Your task to perform on an android device: change keyboard looks Image 0: 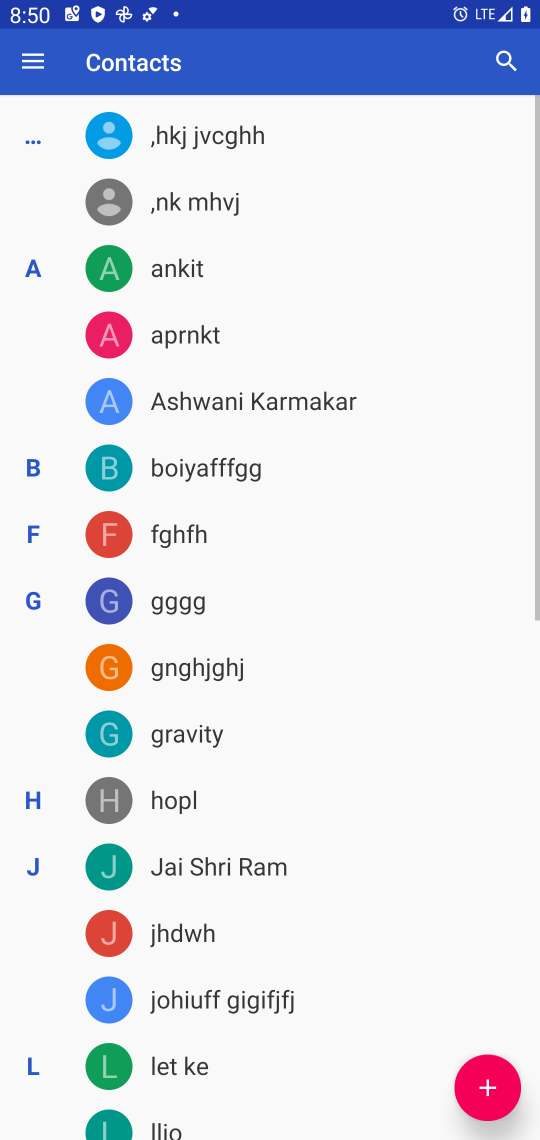
Step 0: press home button
Your task to perform on an android device: change keyboard looks Image 1: 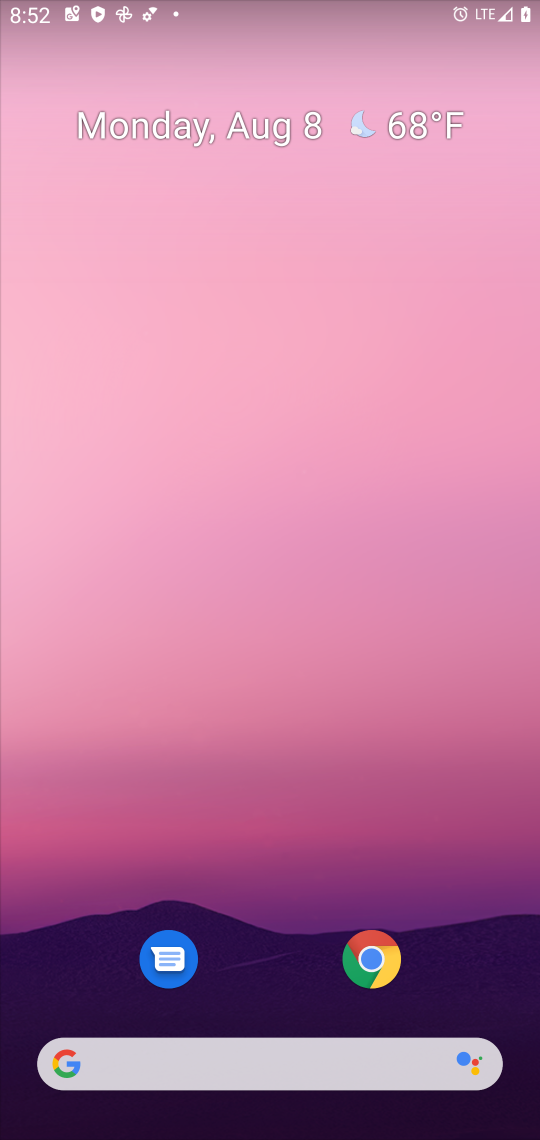
Step 1: drag from (446, 1014) to (253, 8)
Your task to perform on an android device: change keyboard looks Image 2: 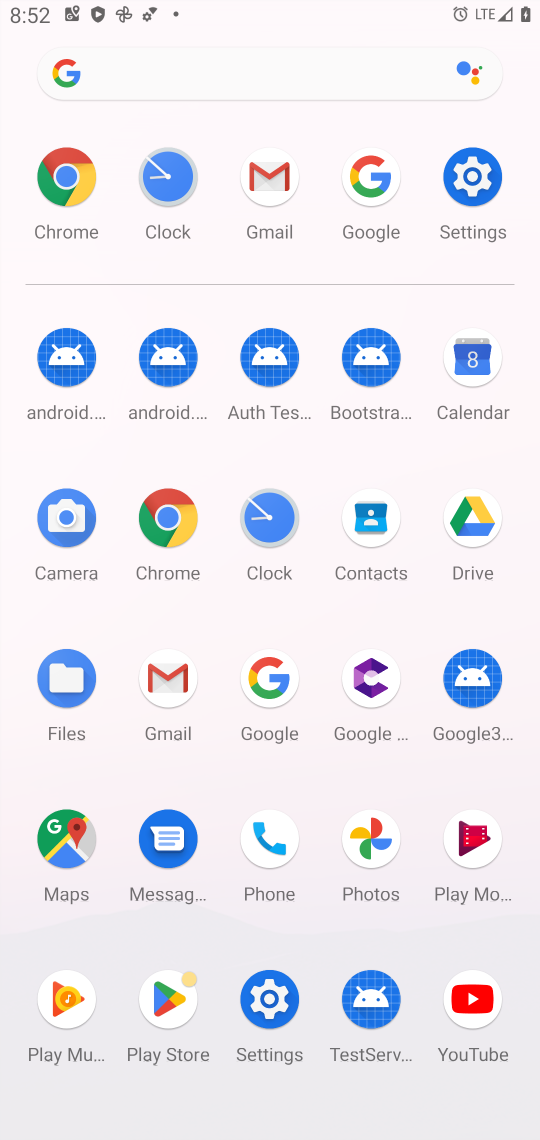
Step 2: click (276, 989)
Your task to perform on an android device: change keyboard looks Image 3: 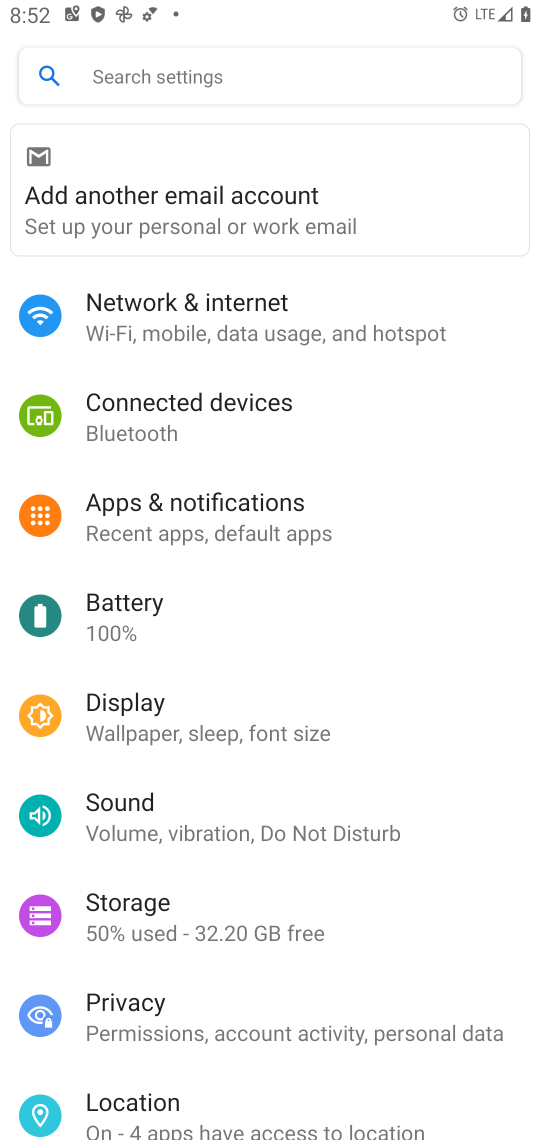
Step 3: drag from (199, 1030) to (191, 0)
Your task to perform on an android device: change keyboard looks Image 4: 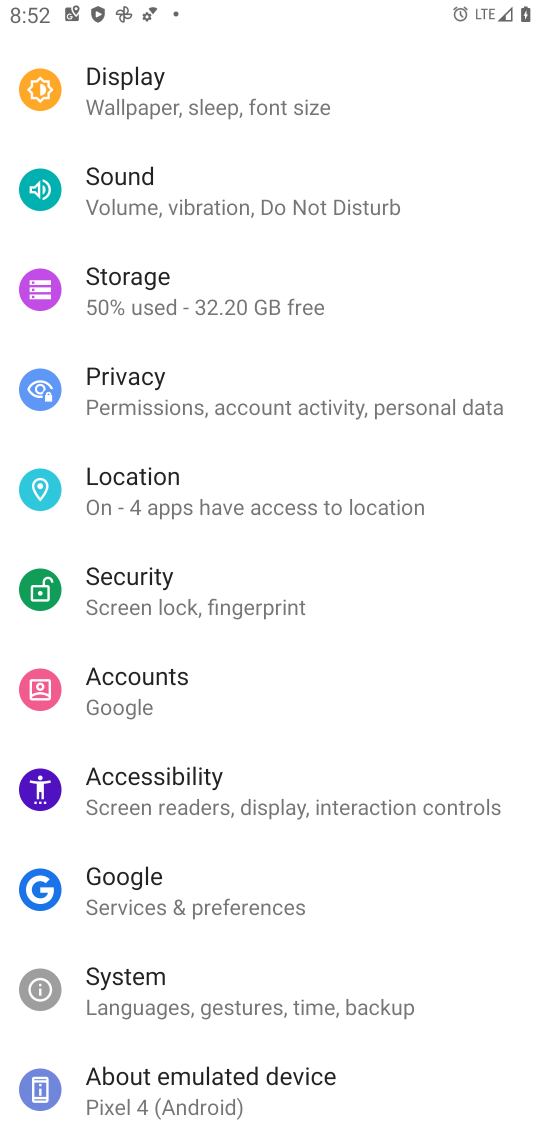
Step 4: click (188, 1003)
Your task to perform on an android device: change keyboard looks Image 5: 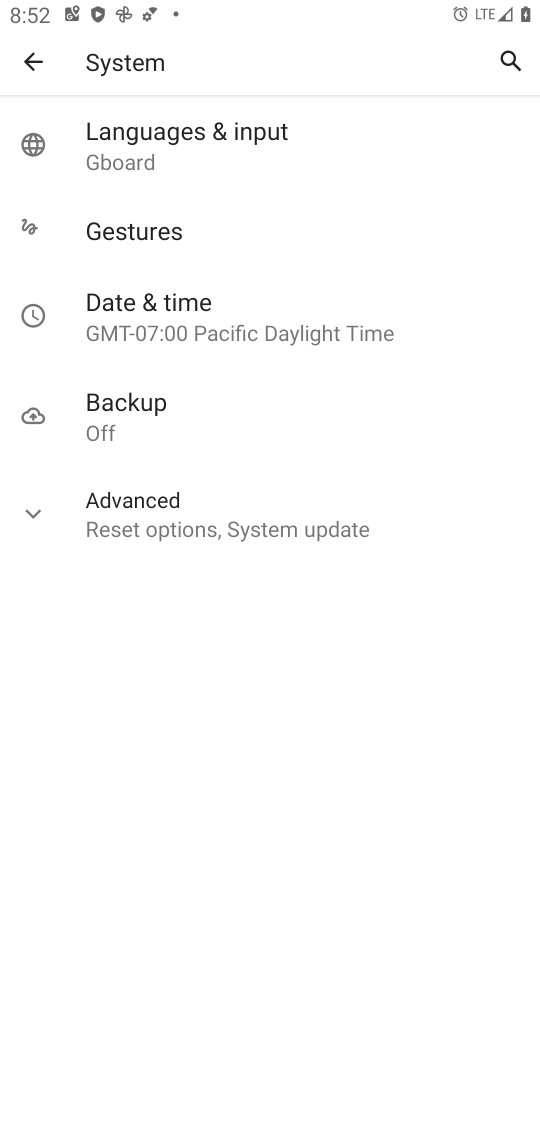
Step 5: click (187, 135)
Your task to perform on an android device: change keyboard looks Image 6: 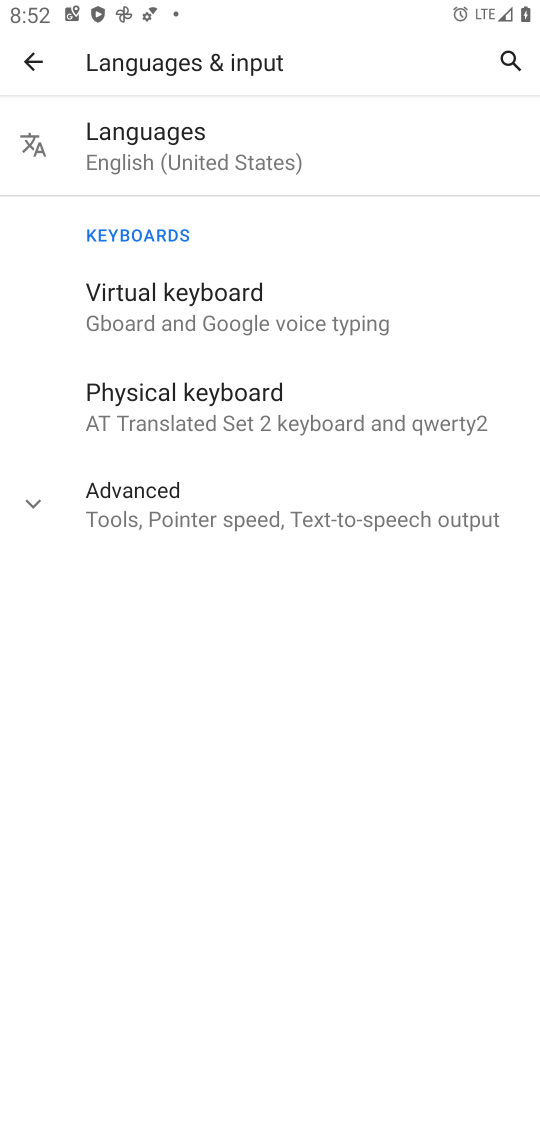
Step 6: click (217, 283)
Your task to perform on an android device: change keyboard looks Image 7: 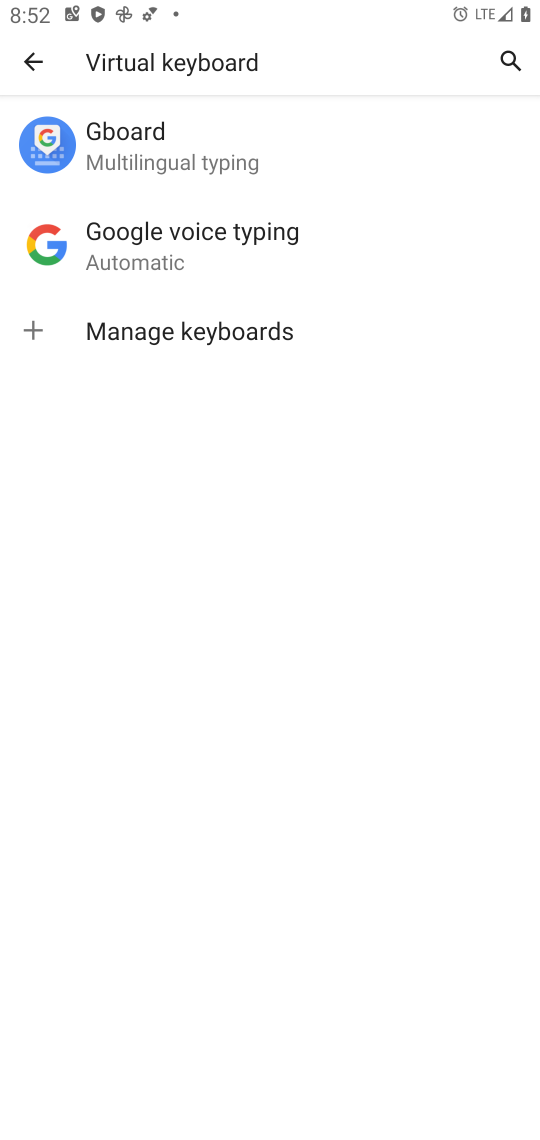
Step 7: click (210, 167)
Your task to perform on an android device: change keyboard looks Image 8: 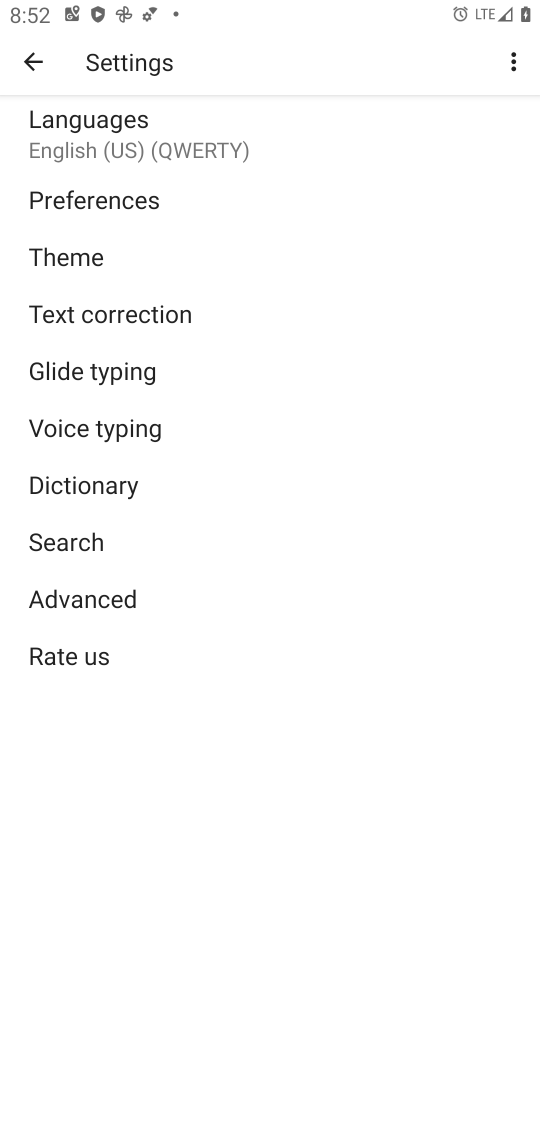
Step 8: click (84, 247)
Your task to perform on an android device: change keyboard looks Image 9: 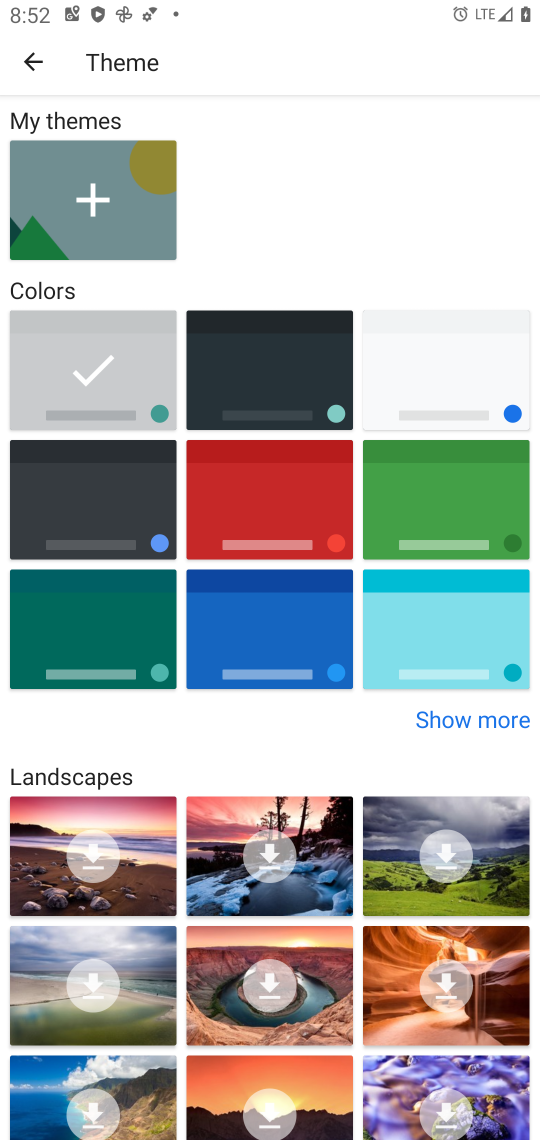
Step 9: click (291, 355)
Your task to perform on an android device: change keyboard looks Image 10: 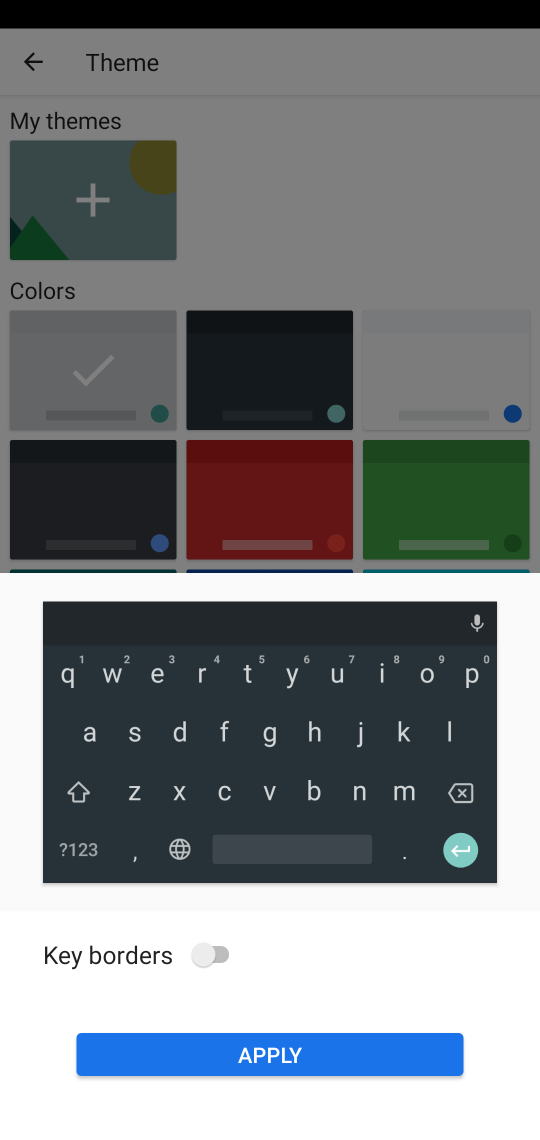
Step 10: click (291, 1053)
Your task to perform on an android device: change keyboard looks Image 11: 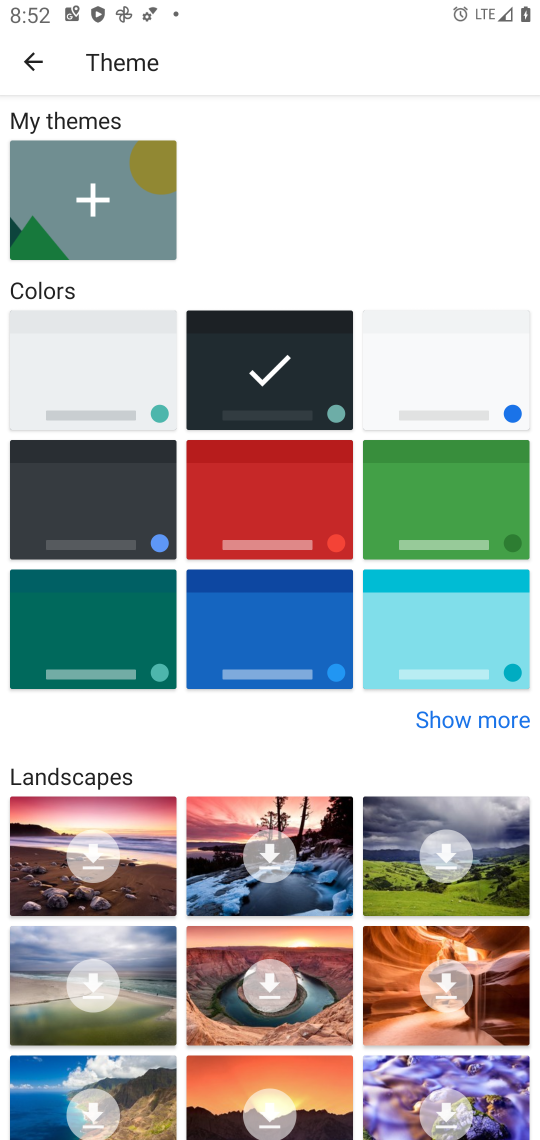
Step 11: task complete